Your task to perform on an android device: open a bookmark in the chrome app Image 0: 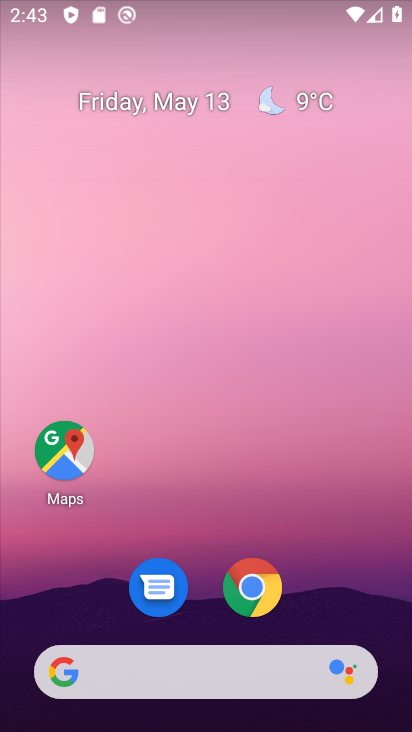
Step 0: click (256, 592)
Your task to perform on an android device: open a bookmark in the chrome app Image 1: 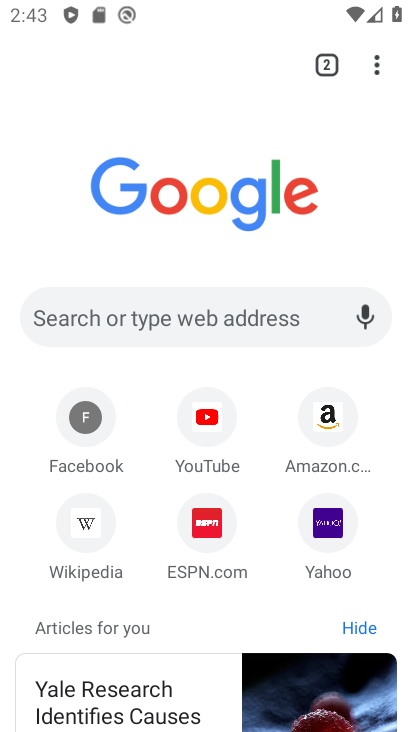
Step 1: task complete